Your task to perform on an android device: Open Youtube and go to "Your channel" Image 0: 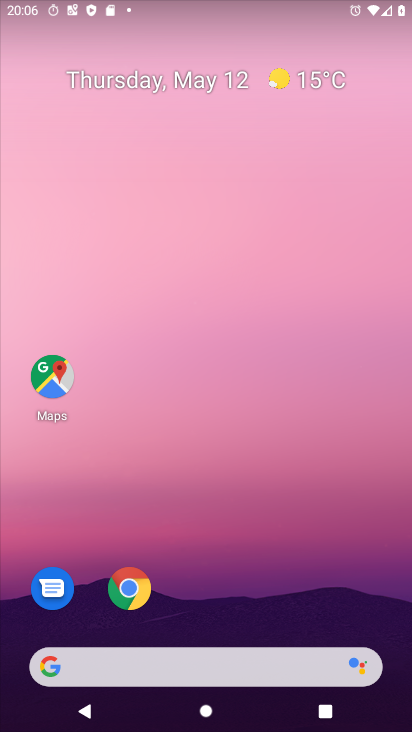
Step 0: drag from (180, 620) to (275, 155)
Your task to perform on an android device: Open Youtube and go to "Your channel" Image 1: 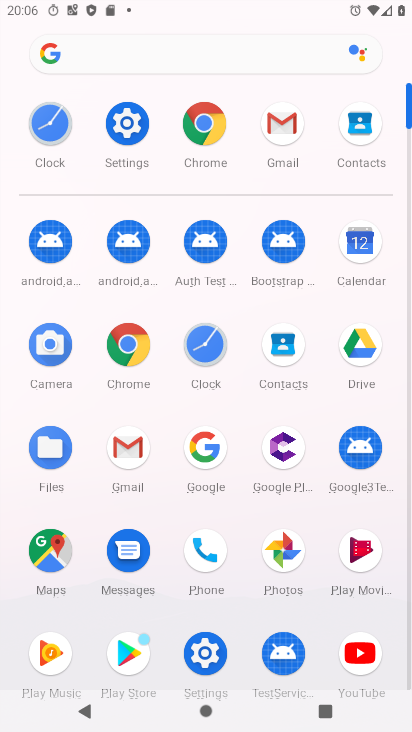
Step 1: click (356, 652)
Your task to perform on an android device: Open Youtube and go to "Your channel" Image 2: 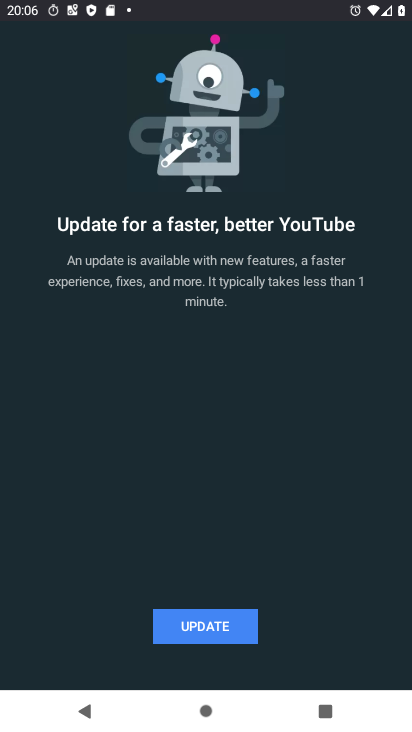
Step 2: click (189, 627)
Your task to perform on an android device: Open Youtube and go to "Your channel" Image 3: 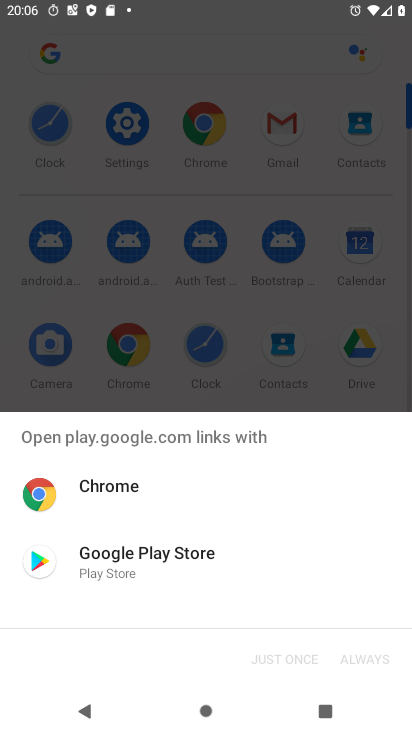
Step 3: click (154, 568)
Your task to perform on an android device: Open Youtube and go to "Your channel" Image 4: 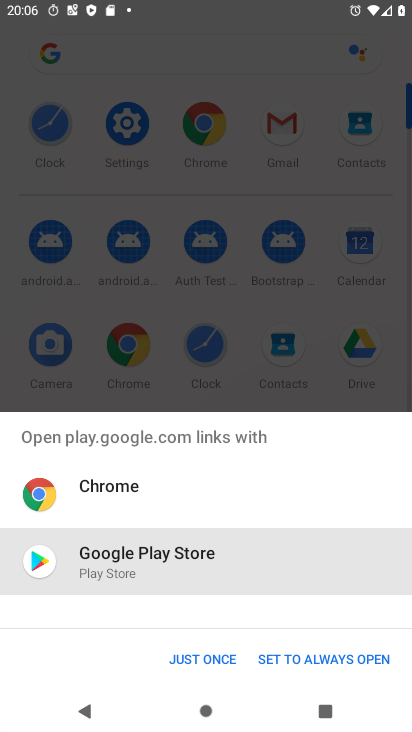
Step 4: drag from (323, 616) to (170, 627)
Your task to perform on an android device: Open Youtube and go to "Your channel" Image 5: 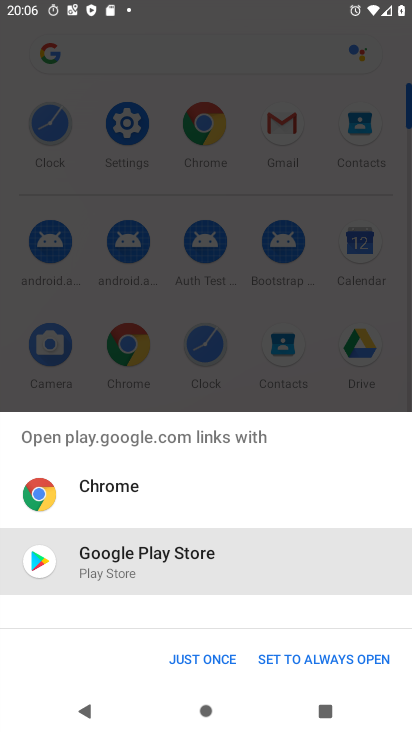
Step 5: click (185, 652)
Your task to perform on an android device: Open Youtube and go to "Your channel" Image 6: 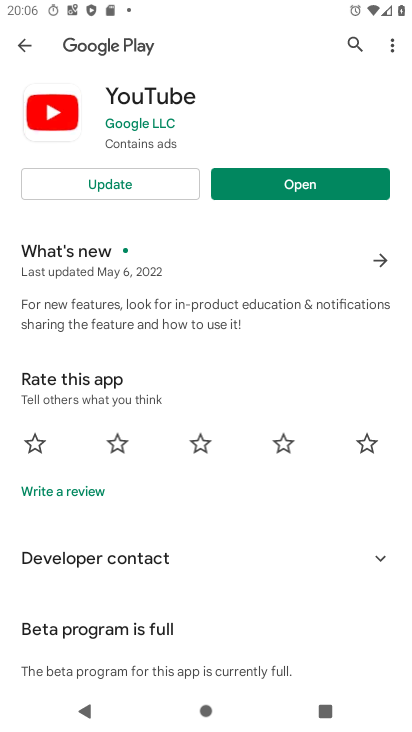
Step 6: click (121, 189)
Your task to perform on an android device: Open Youtube and go to "Your channel" Image 7: 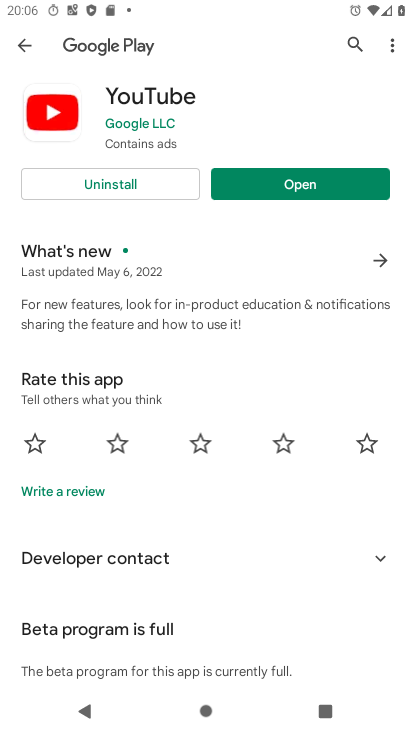
Step 7: click (298, 191)
Your task to perform on an android device: Open Youtube and go to "Your channel" Image 8: 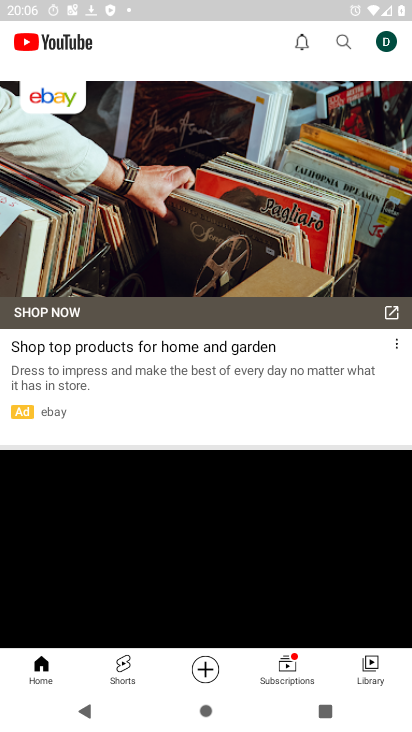
Step 8: click (388, 47)
Your task to perform on an android device: Open Youtube and go to "Your channel" Image 9: 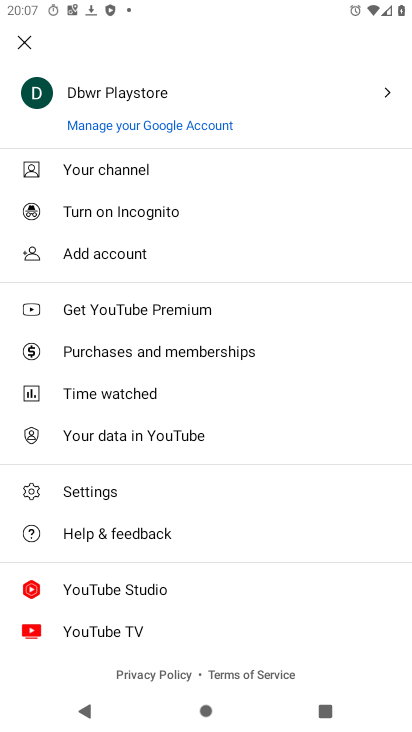
Step 9: click (144, 175)
Your task to perform on an android device: Open Youtube and go to "Your channel" Image 10: 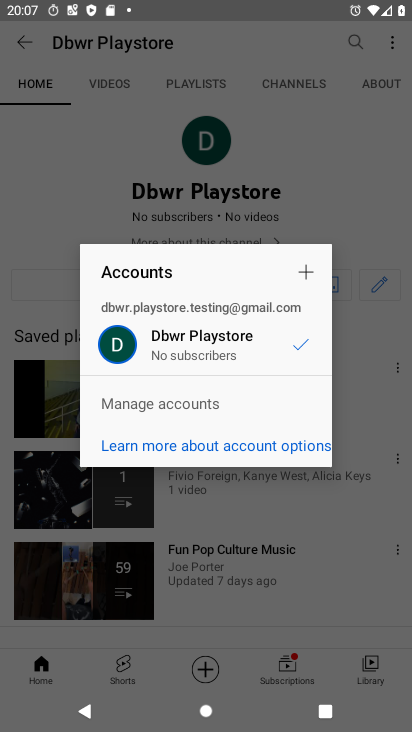
Step 10: task complete